Your task to perform on an android device: see sites visited before in the chrome app Image 0: 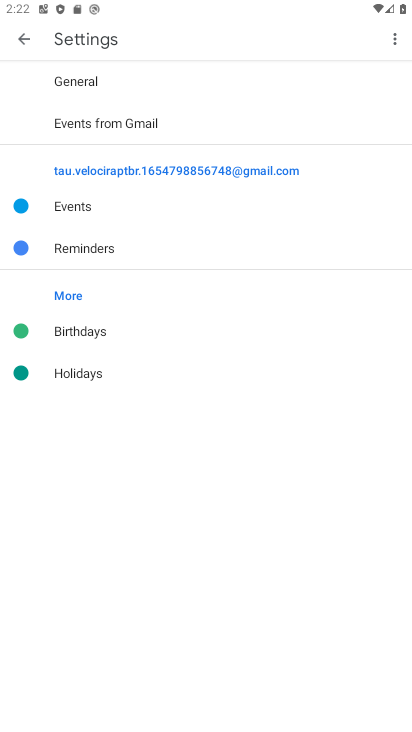
Step 0: press home button
Your task to perform on an android device: see sites visited before in the chrome app Image 1: 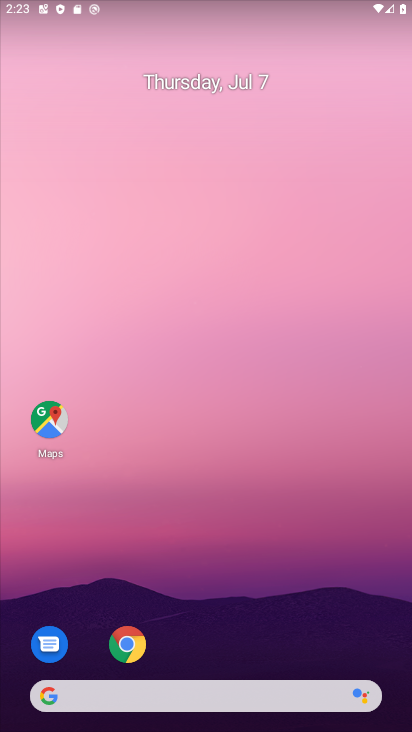
Step 1: click (126, 644)
Your task to perform on an android device: see sites visited before in the chrome app Image 2: 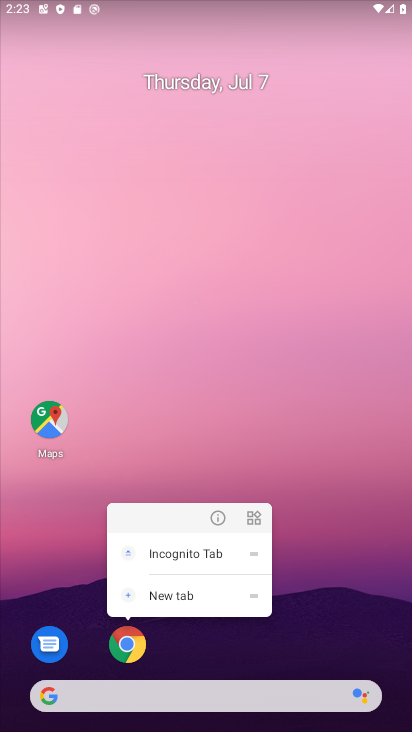
Step 2: drag from (306, 648) to (277, 74)
Your task to perform on an android device: see sites visited before in the chrome app Image 3: 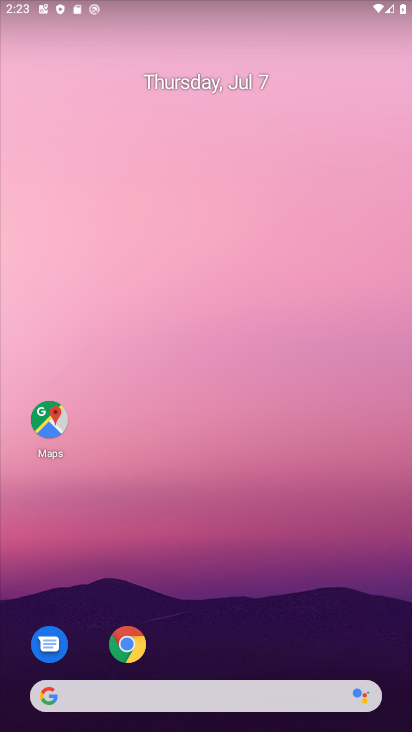
Step 3: drag from (262, 647) to (242, 22)
Your task to perform on an android device: see sites visited before in the chrome app Image 4: 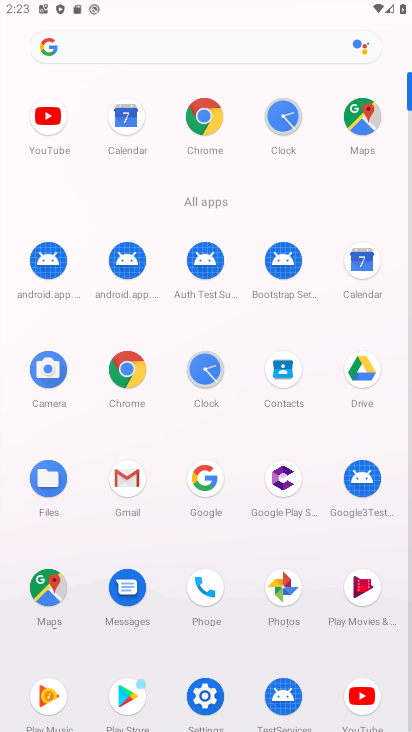
Step 4: click (203, 117)
Your task to perform on an android device: see sites visited before in the chrome app Image 5: 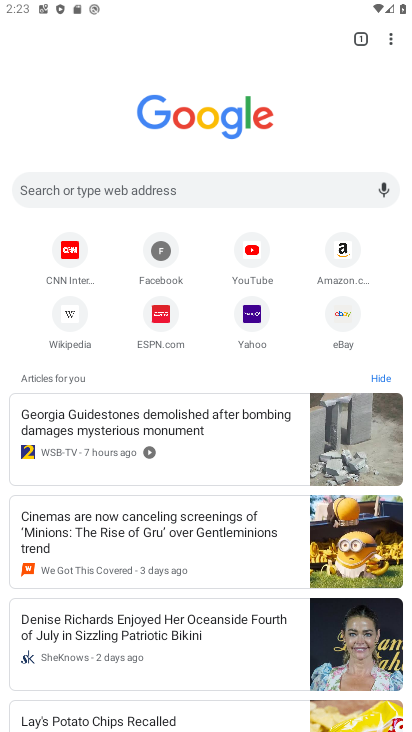
Step 5: task complete